Your task to perform on an android device: open device folders in google photos Image 0: 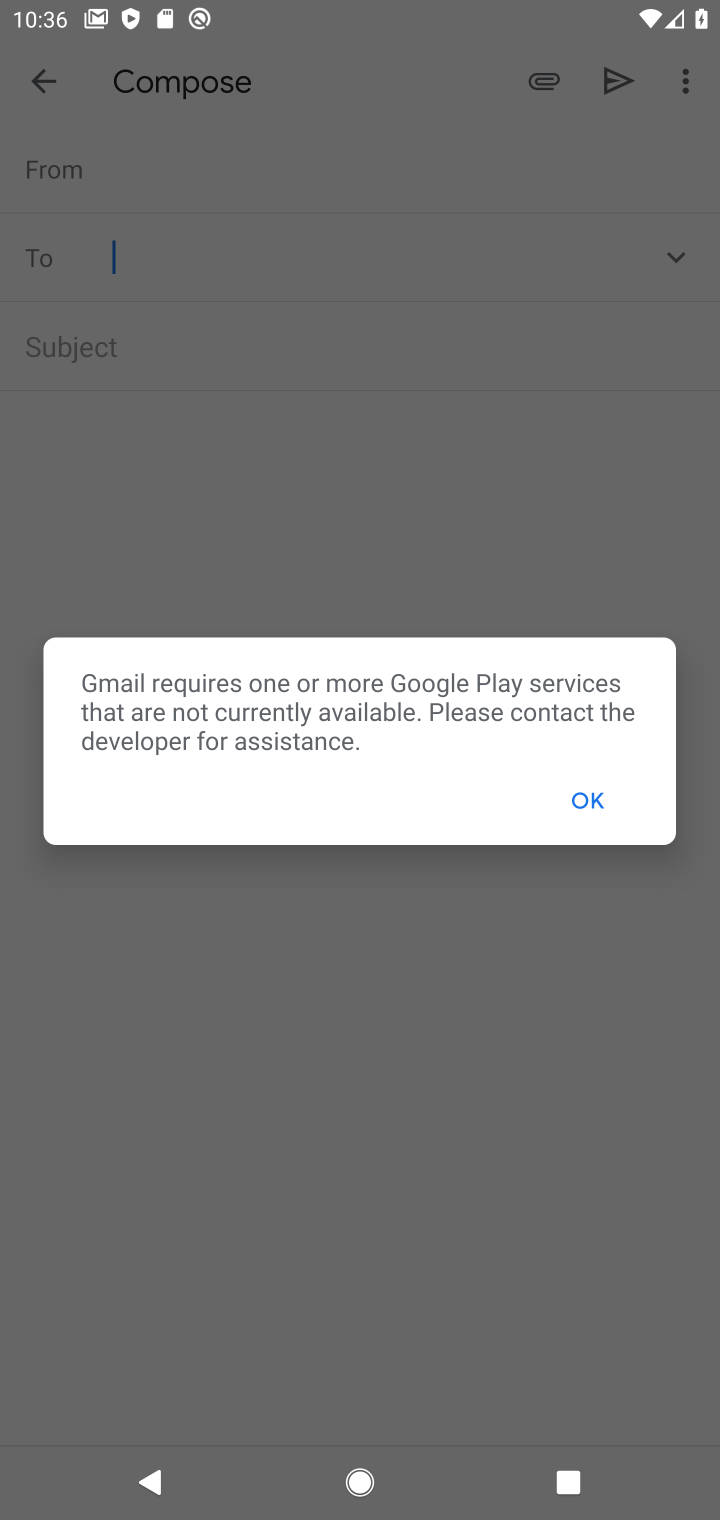
Step 0: press home button
Your task to perform on an android device: open device folders in google photos Image 1: 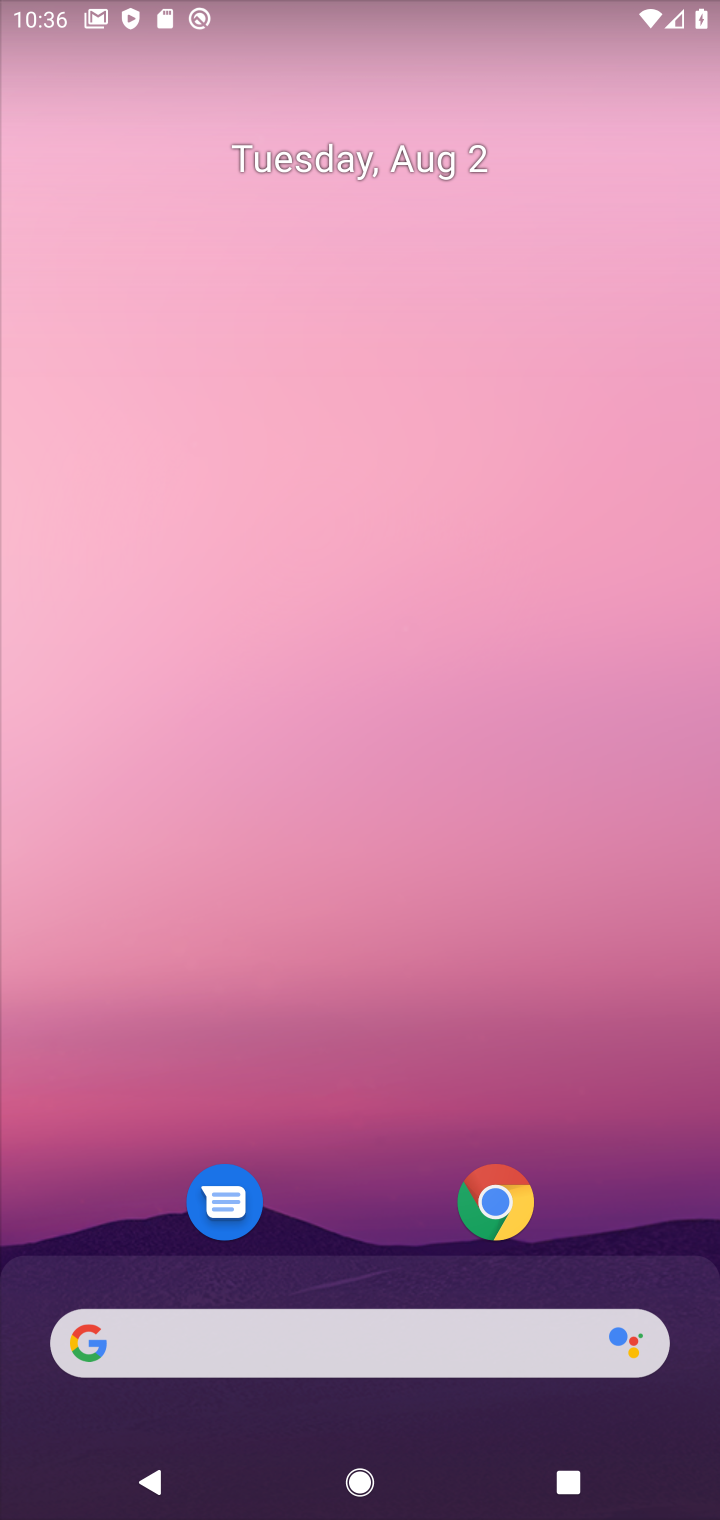
Step 1: drag from (668, 1251) to (322, 36)
Your task to perform on an android device: open device folders in google photos Image 2: 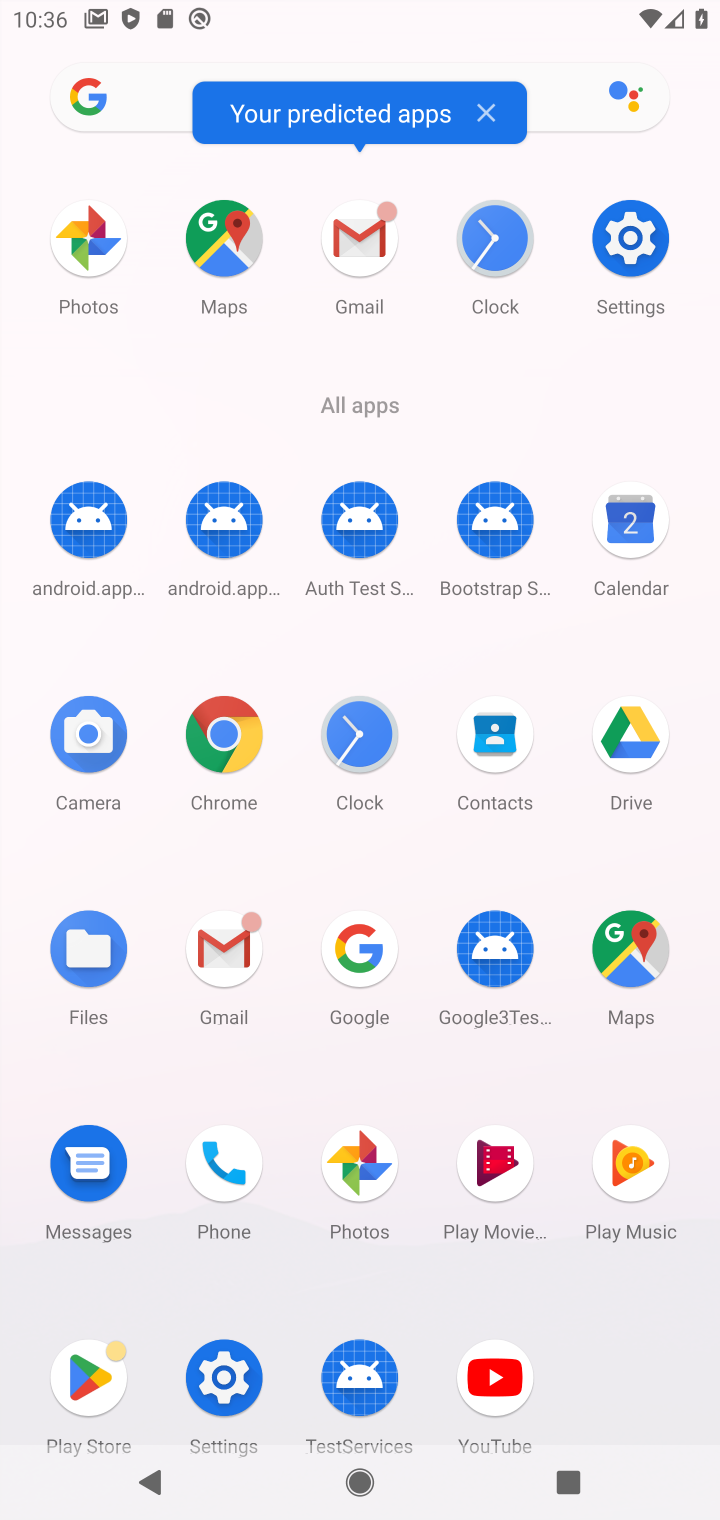
Step 2: click (92, 227)
Your task to perform on an android device: open device folders in google photos Image 3: 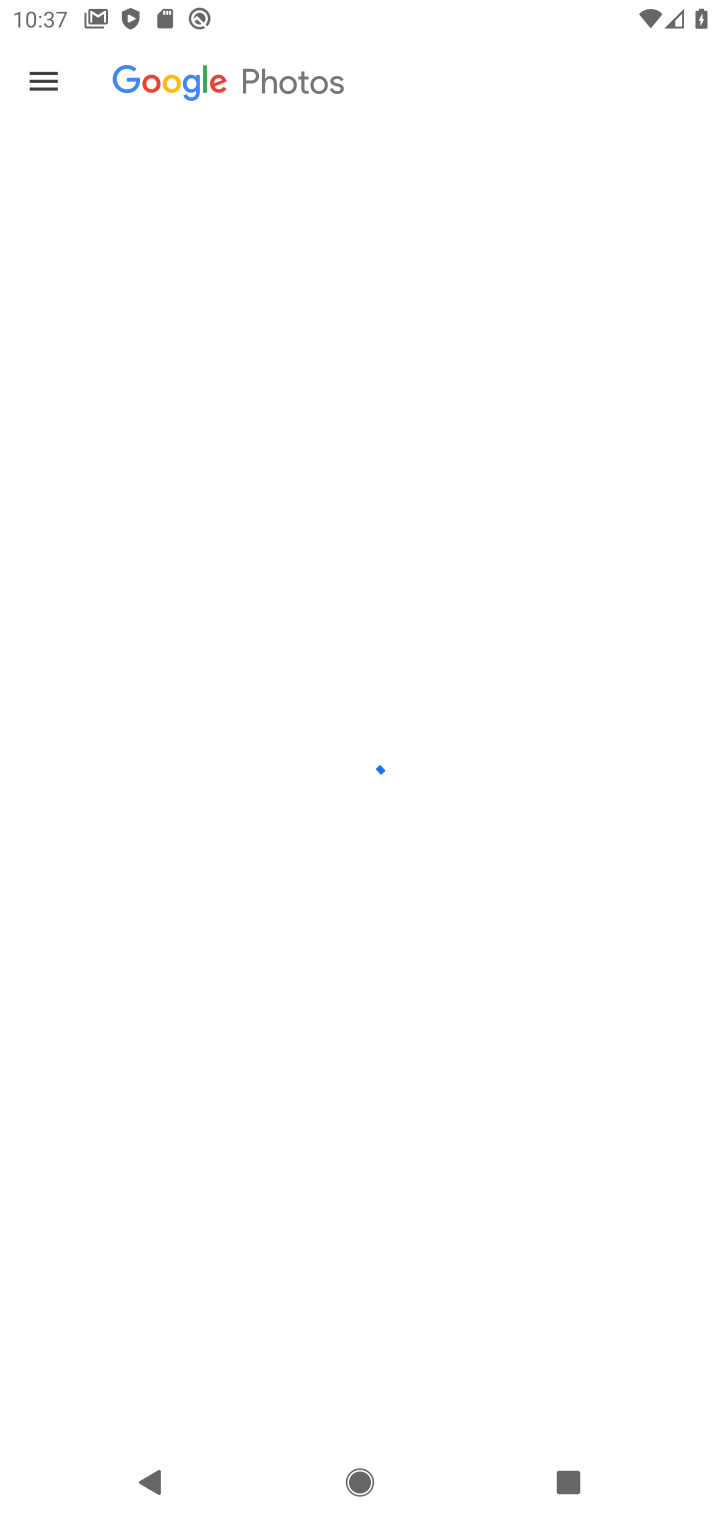
Step 3: click (47, 97)
Your task to perform on an android device: open device folders in google photos Image 4: 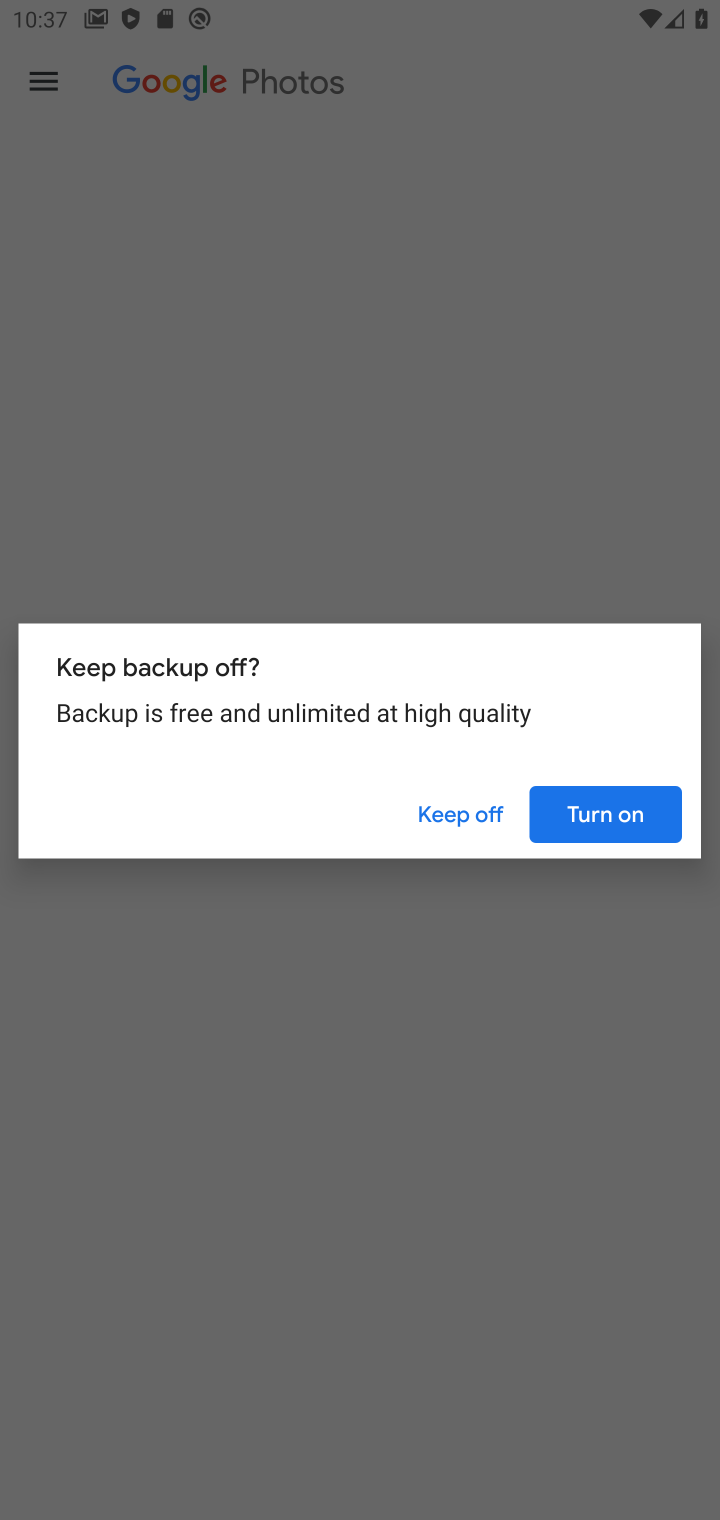
Step 4: click (42, 83)
Your task to perform on an android device: open device folders in google photos Image 5: 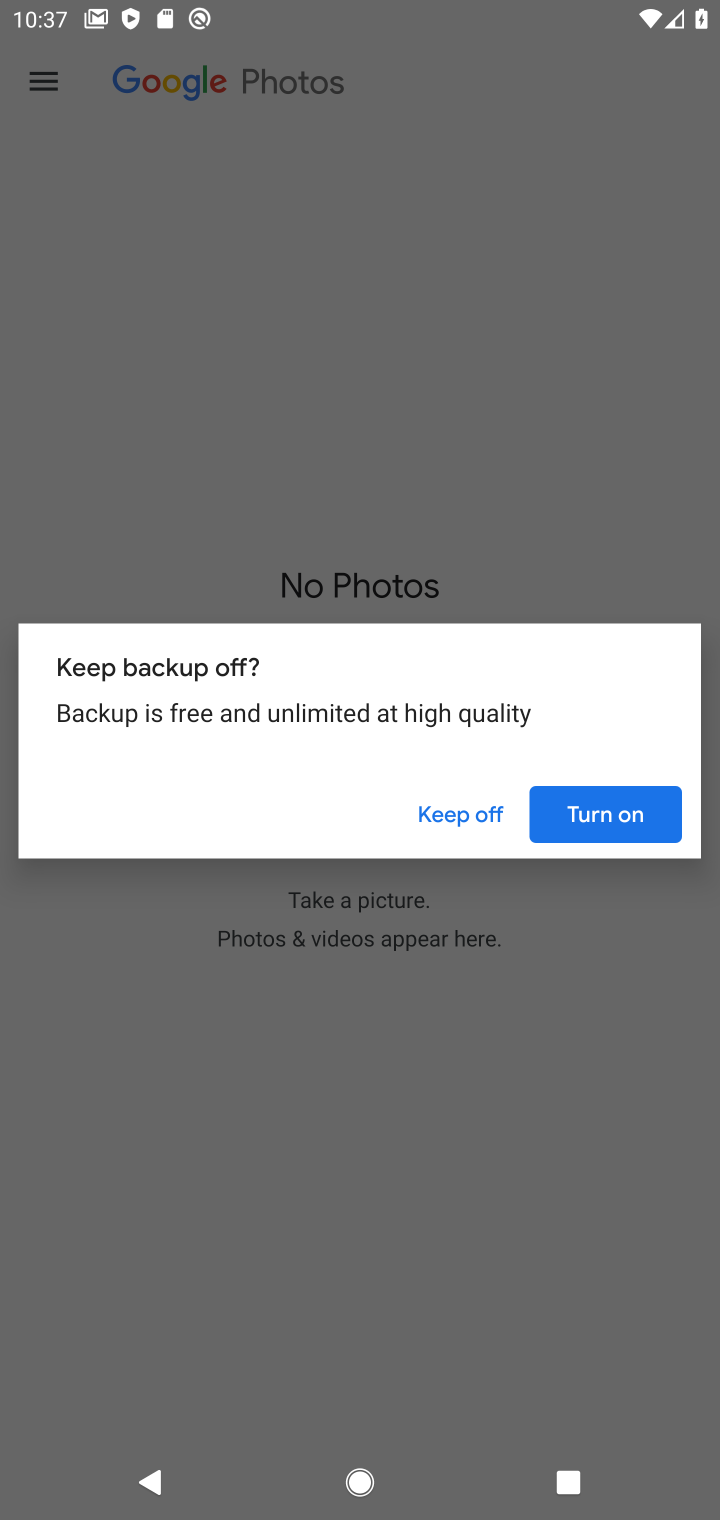
Step 5: click (620, 829)
Your task to perform on an android device: open device folders in google photos Image 6: 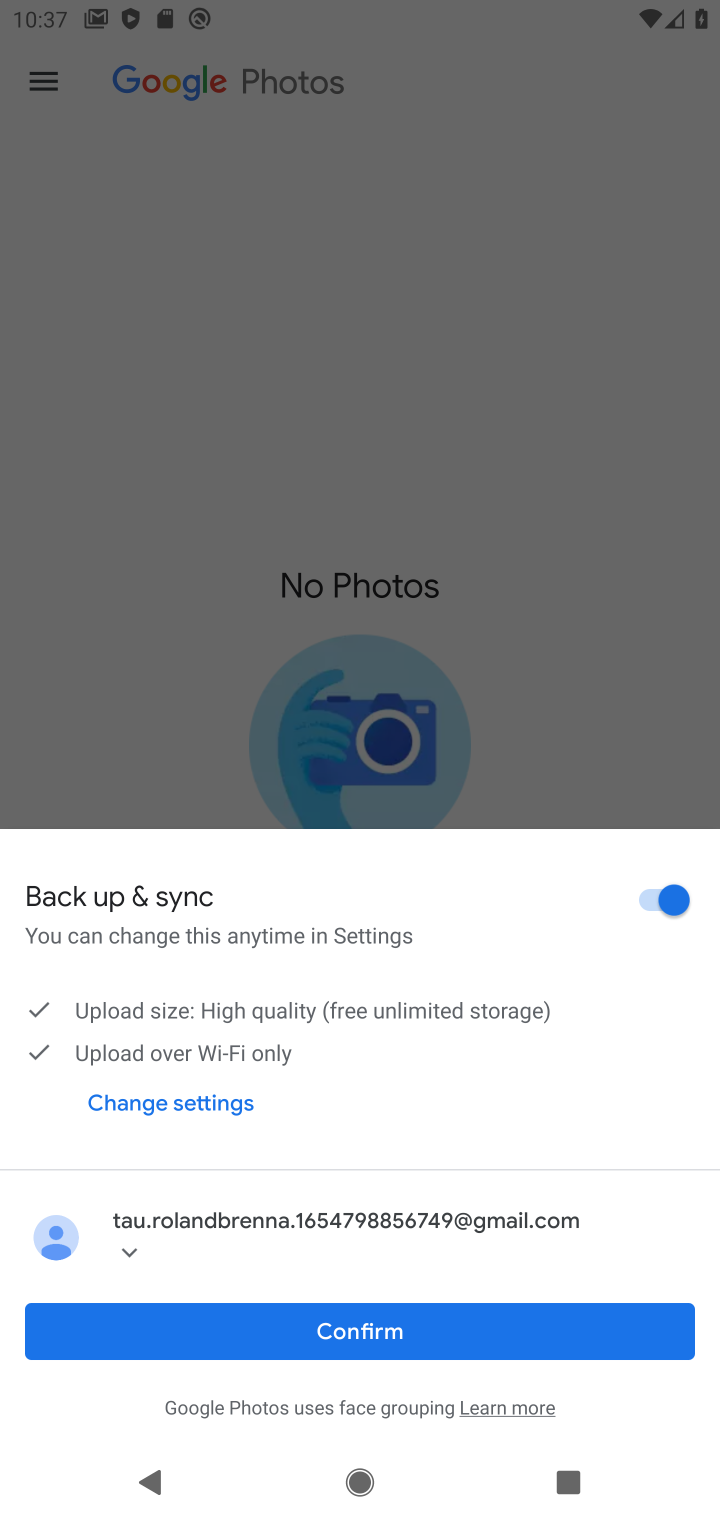
Step 6: click (441, 1315)
Your task to perform on an android device: open device folders in google photos Image 7: 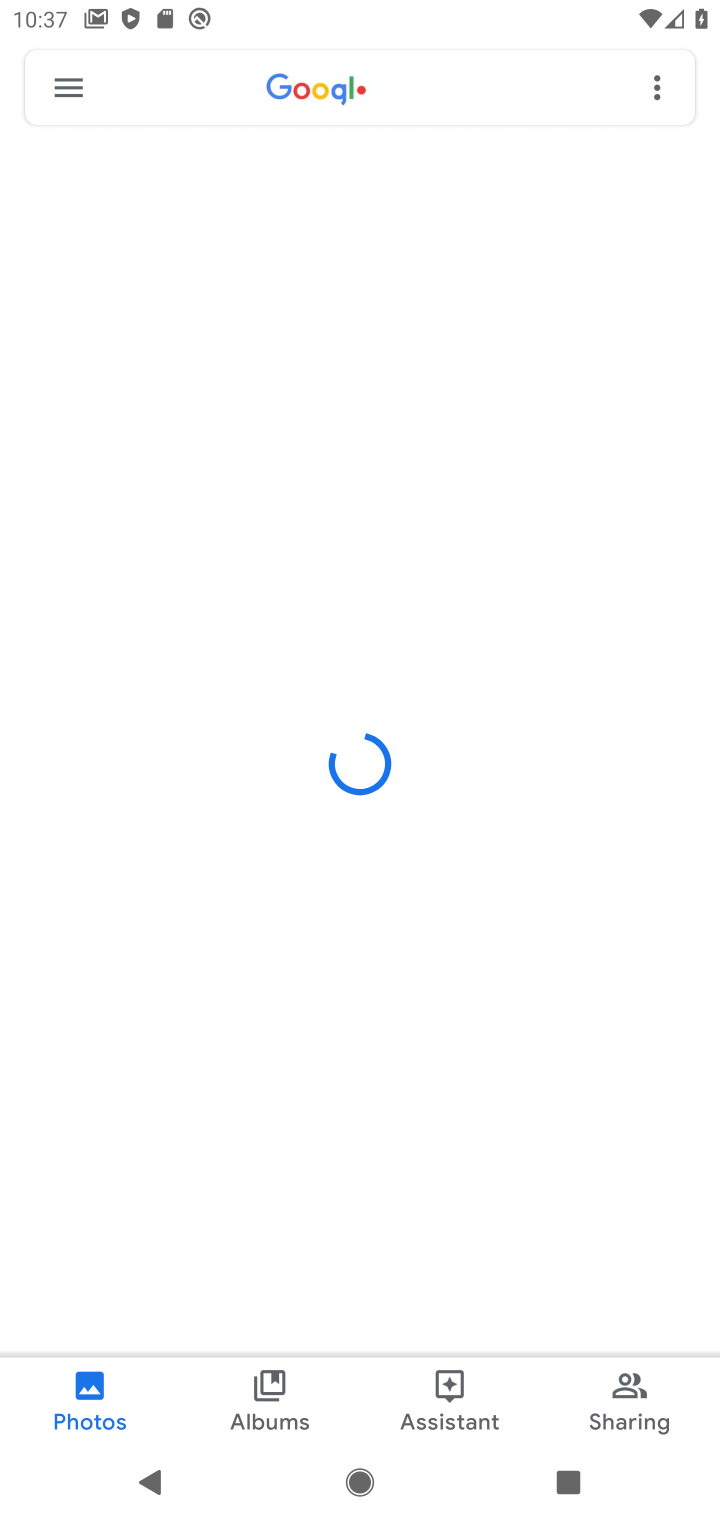
Step 7: click (64, 122)
Your task to perform on an android device: open device folders in google photos Image 8: 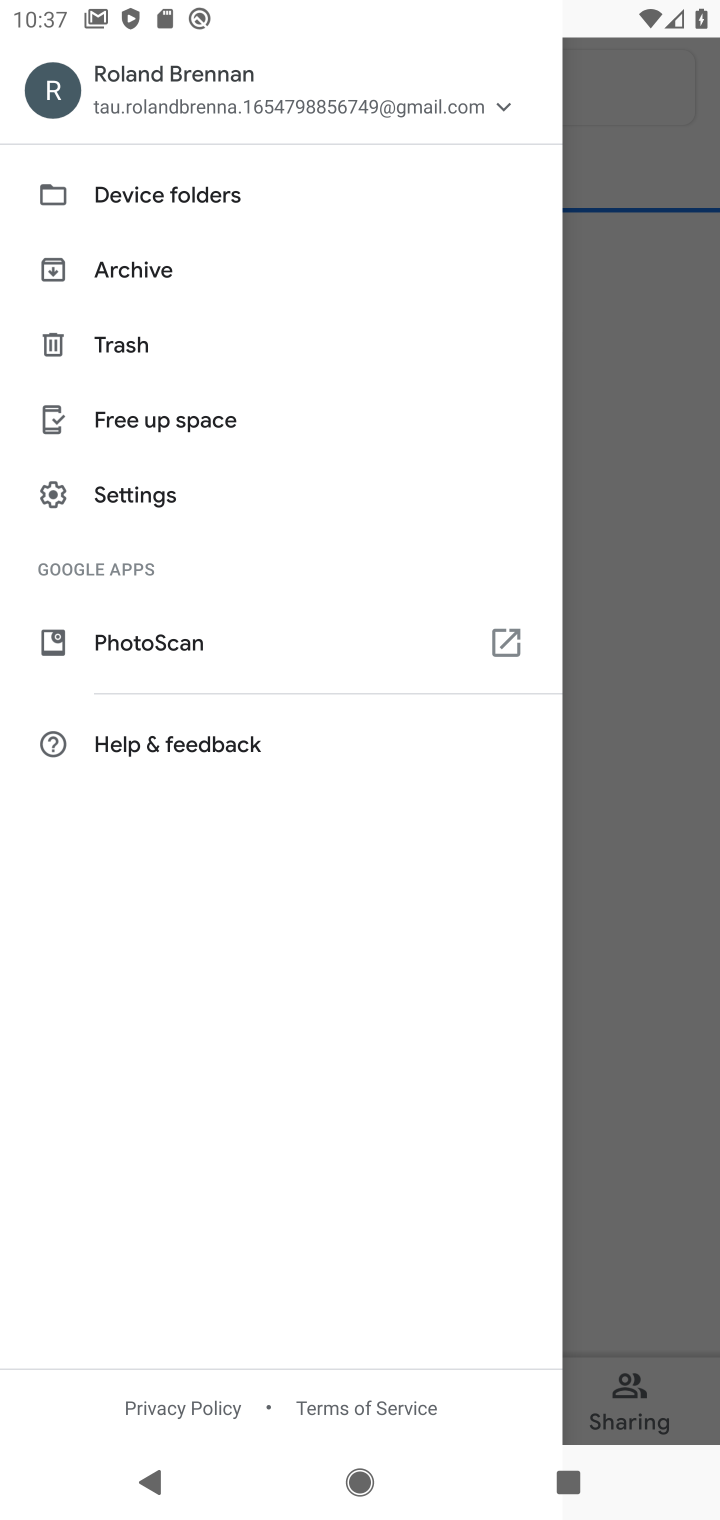
Step 8: click (200, 190)
Your task to perform on an android device: open device folders in google photos Image 9: 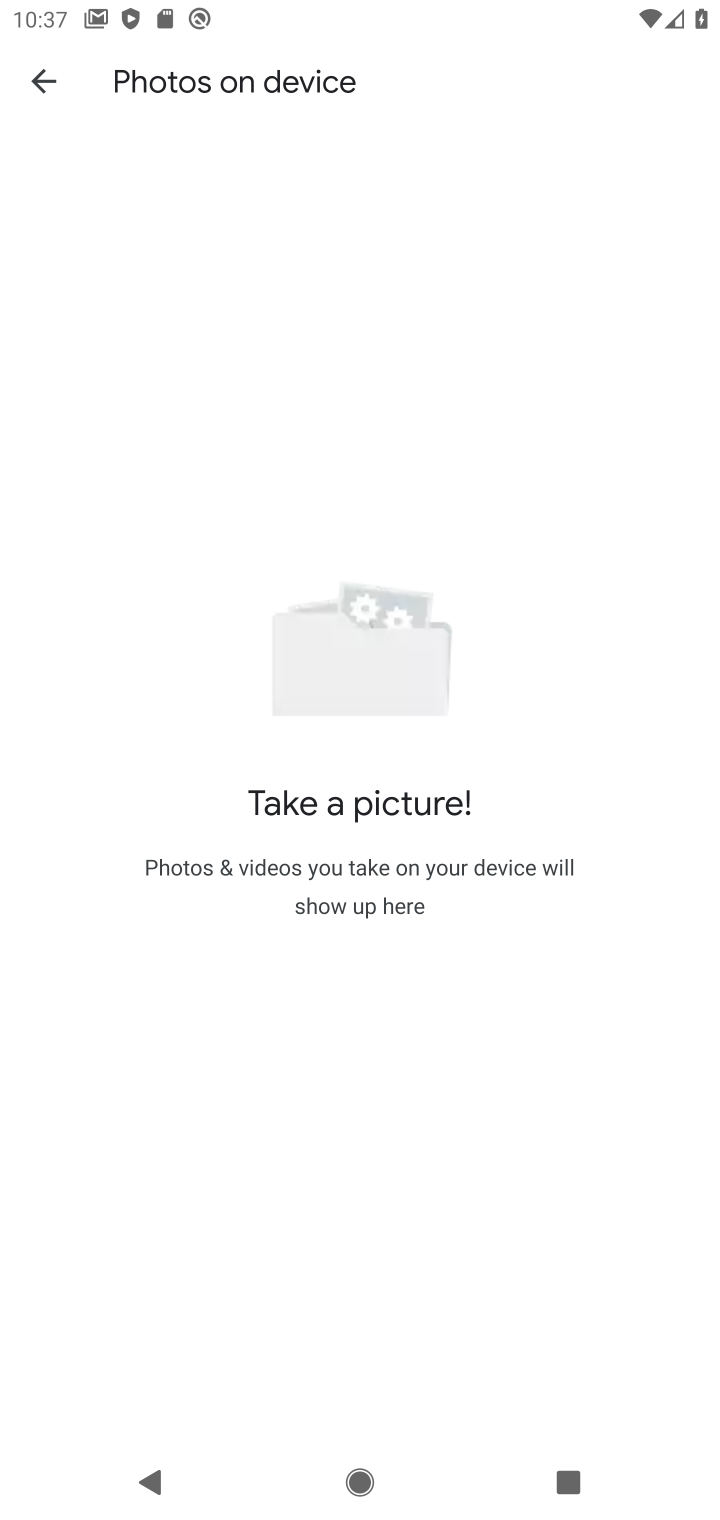
Step 9: task complete